Your task to perform on an android device: change the clock style Image 0: 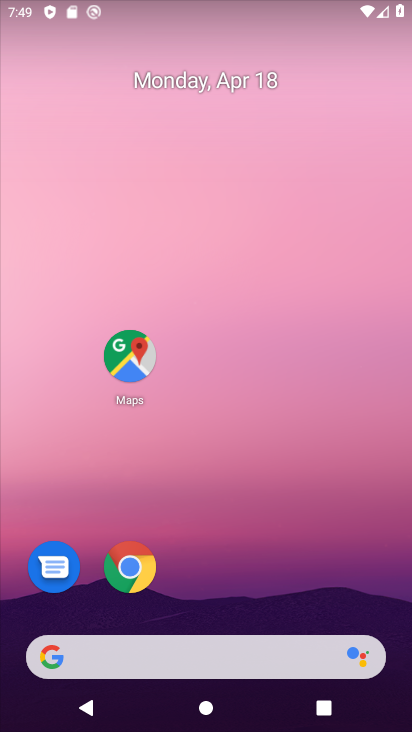
Step 0: drag from (308, 690) to (400, 80)
Your task to perform on an android device: change the clock style Image 1: 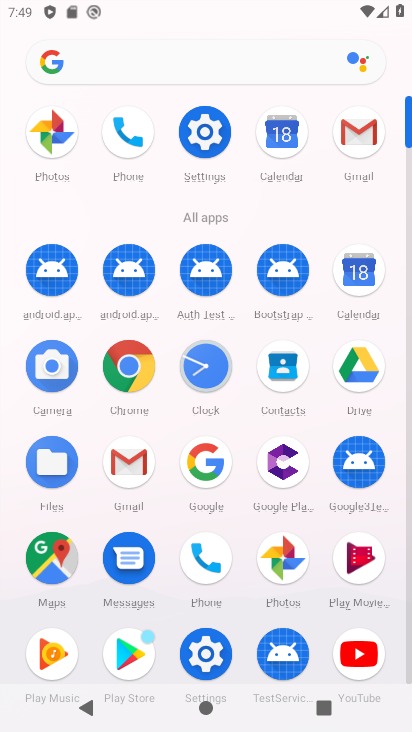
Step 1: click (195, 376)
Your task to perform on an android device: change the clock style Image 2: 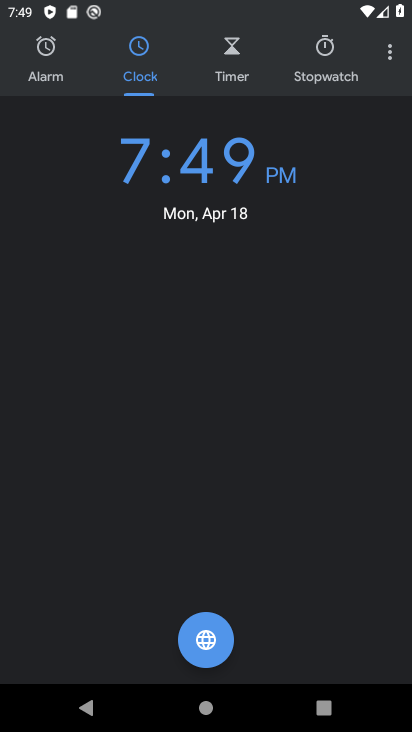
Step 2: click (383, 59)
Your task to perform on an android device: change the clock style Image 3: 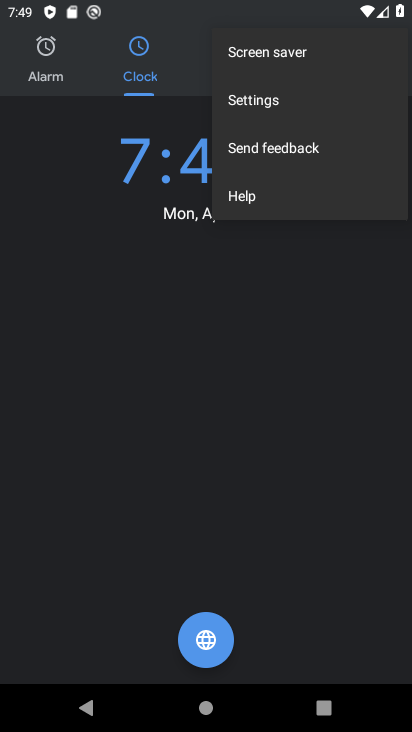
Step 3: click (292, 108)
Your task to perform on an android device: change the clock style Image 4: 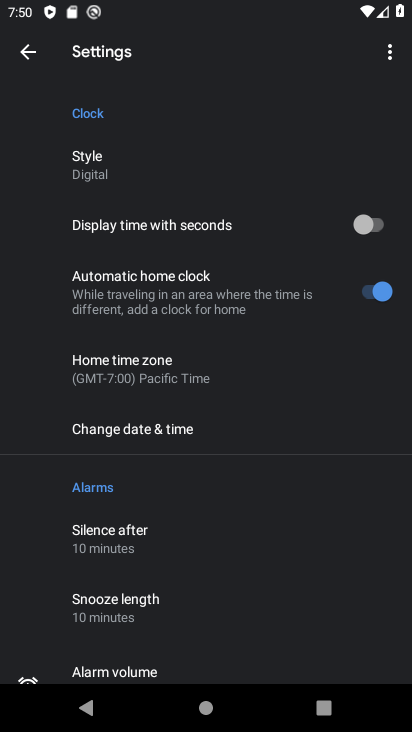
Step 4: click (90, 153)
Your task to perform on an android device: change the clock style Image 5: 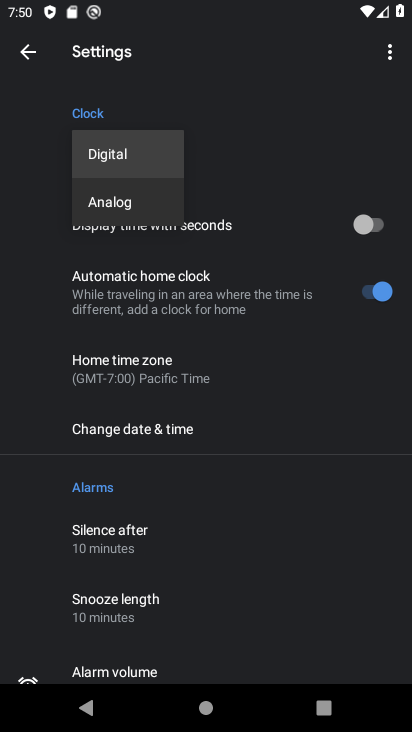
Step 5: click (110, 193)
Your task to perform on an android device: change the clock style Image 6: 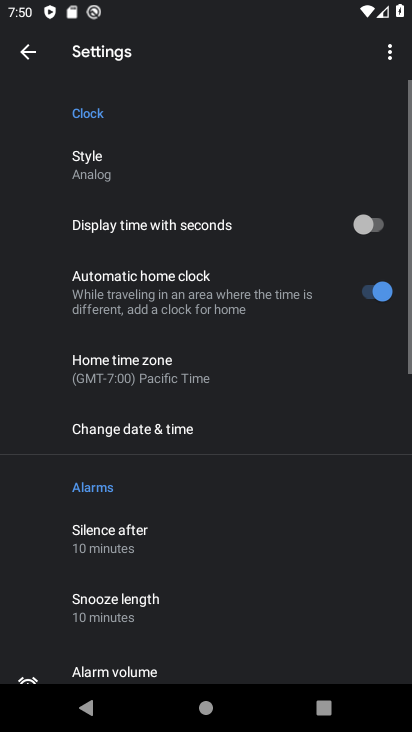
Step 6: task complete